Your task to perform on an android device: Show me recent news Image 0: 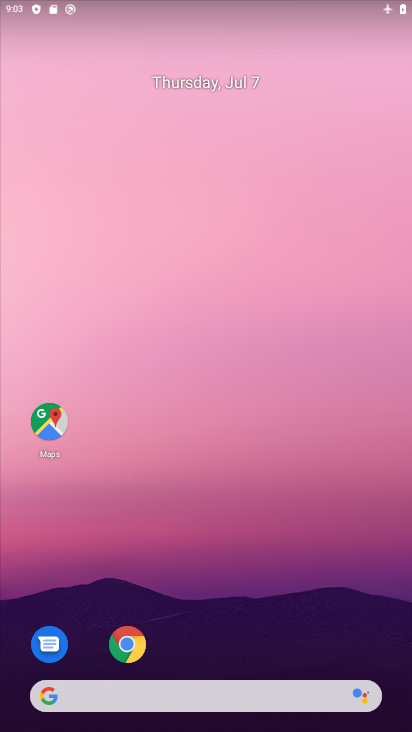
Step 0: drag from (213, 637) to (254, 77)
Your task to perform on an android device: Show me recent news Image 1: 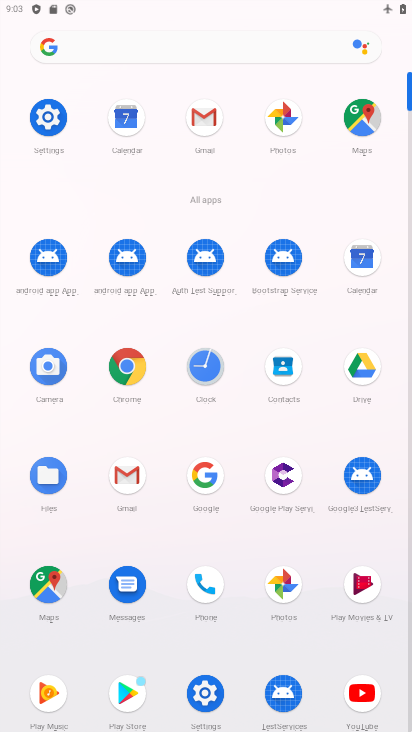
Step 1: click (132, 357)
Your task to perform on an android device: Show me recent news Image 2: 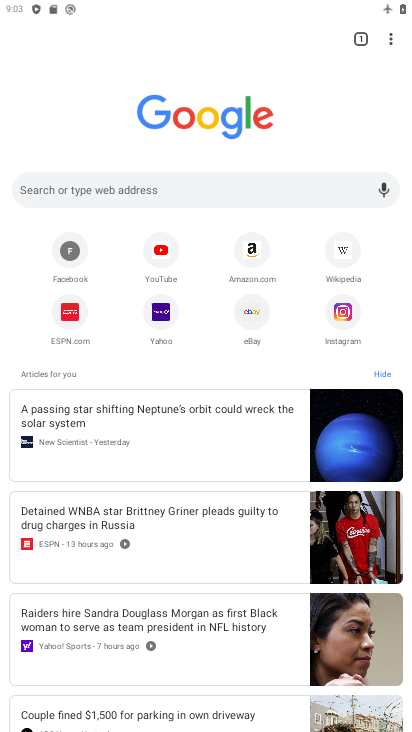
Step 2: click (191, 189)
Your task to perform on an android device: Show me recent news Image 3: 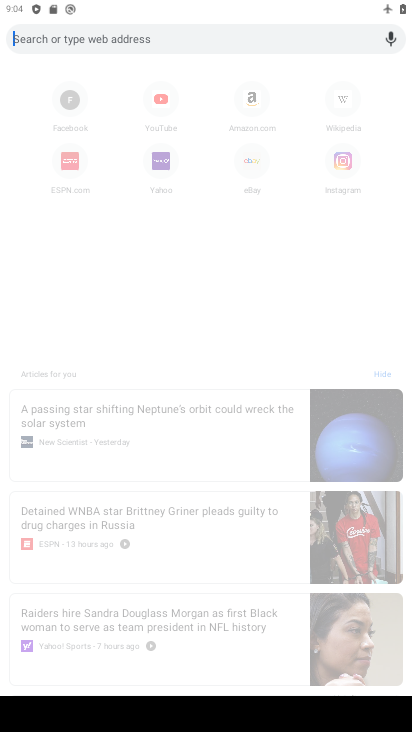
Step 3: type "news"
Your task to perform on an android device: Show me recent news Image 4: 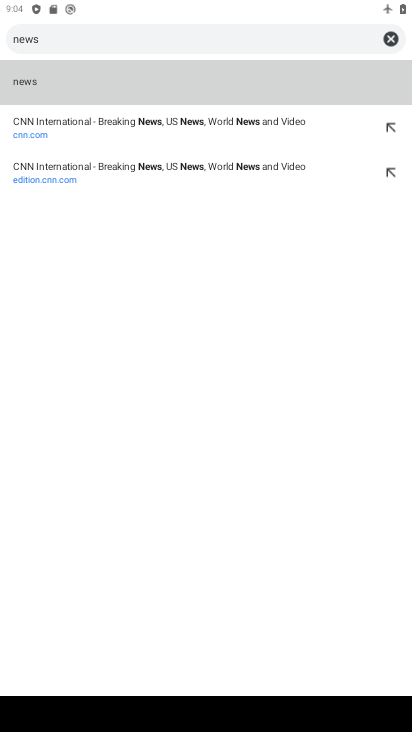
Step 4: click (26, 82)
Your task to perform on an android device: Show me recent news Image 5: 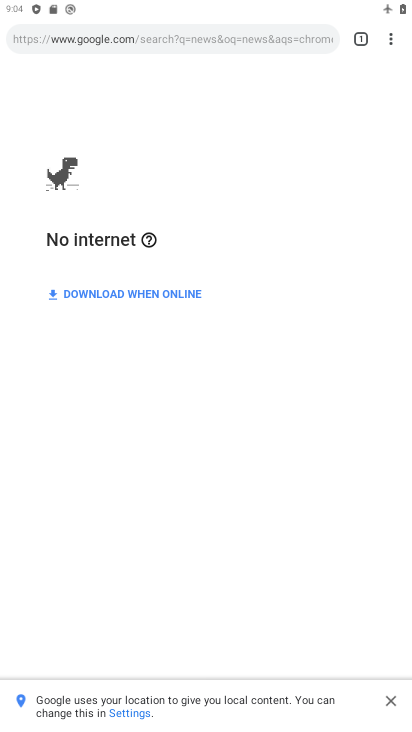
Step 5: task complete